Your task to perform on an android device: change alarm snooze length Image 0: 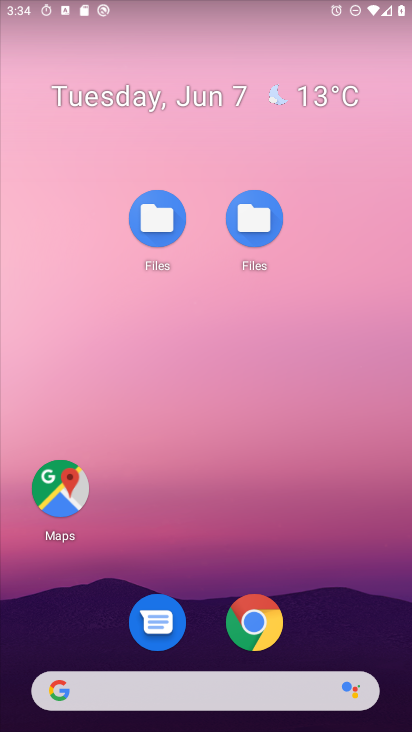
Step 0: drag from (345, 609) to (304, 36)
Your task to perform on an android device: change alarm snooze length Image 1: 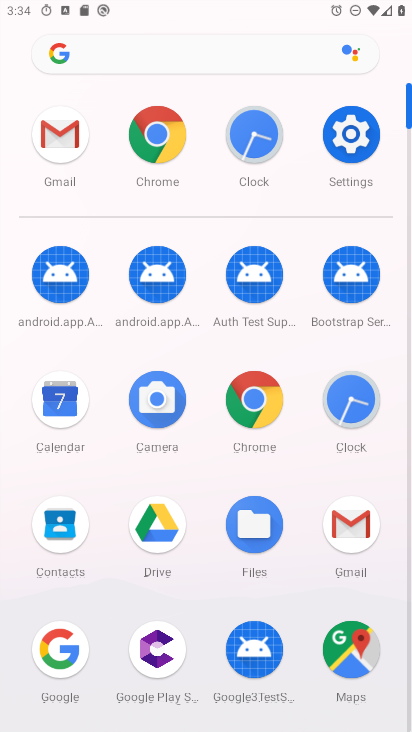
Step 1: click (241, 211)
Your task to perform on an android device: change alarm snooze length Image 2: 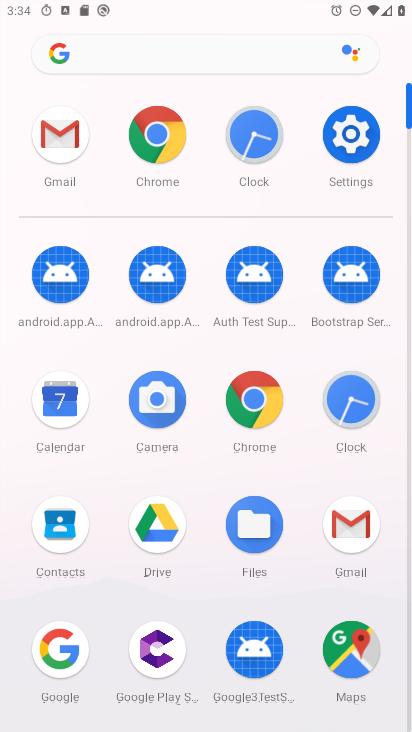
Step 2: click (251, 144)
Your task to perform on an android device: change alarm snooze length Image 3: 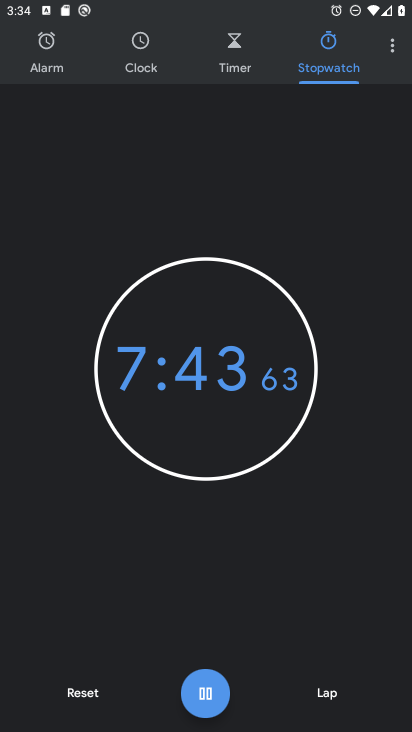
Step 3: click (51, 53)
Your task to perform on an android device: change alarm snooze length Image 4: 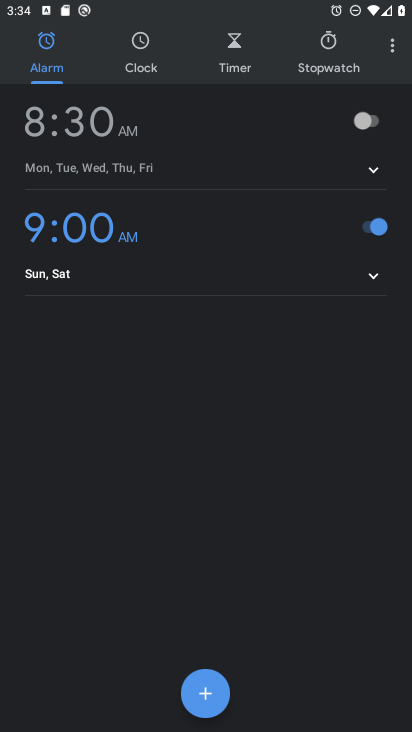
Step 4: click (387, 45)
Your task to perform on an android device: change alarm snooze length Image 5: 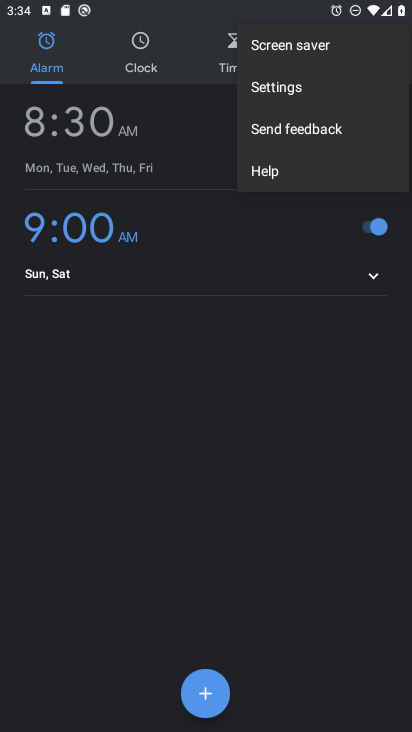
Step 5: click (282, 95)
Your task to perform on an android device: change alarm snooze length Image 6: 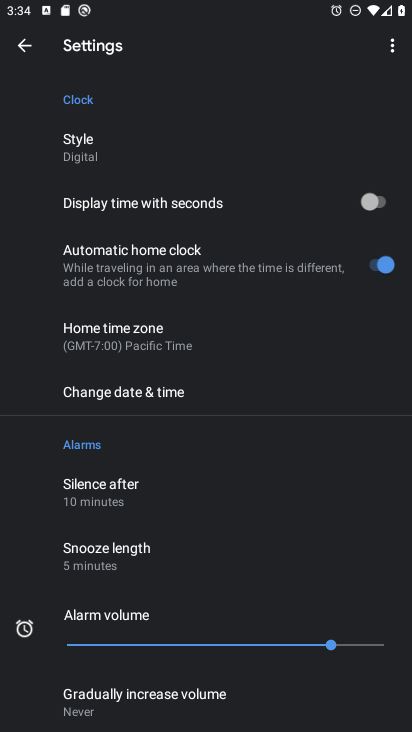
Step 6: click (111, 552)
Your task to perform on an android device: change alarm snooze length Image 7: 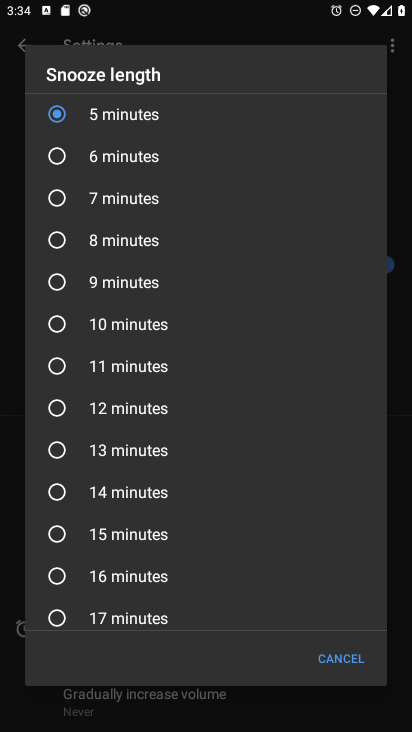
Step 7: click (64, 196)
Your task to perform on an android device: change alarm snooze length Image 8: 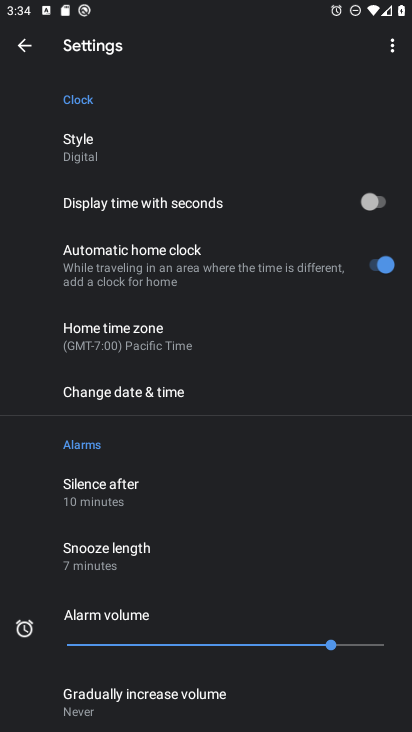
Step 8: task complete